Your task to perform on an android device: install app "Adobe Acrobat Reader" Image 0: 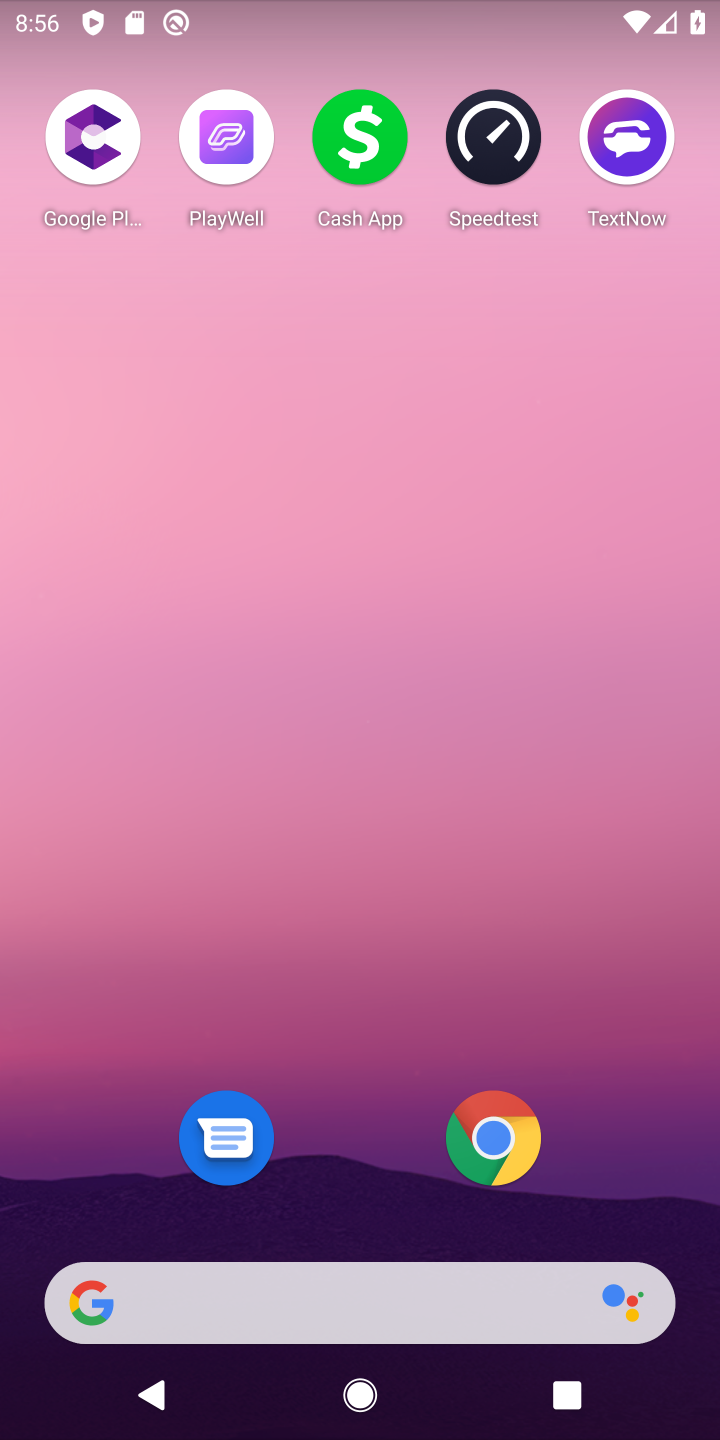
Step 0: press home button
Your task to perform on an android device: install app "Adobe Acrobat Reader" Image 1: 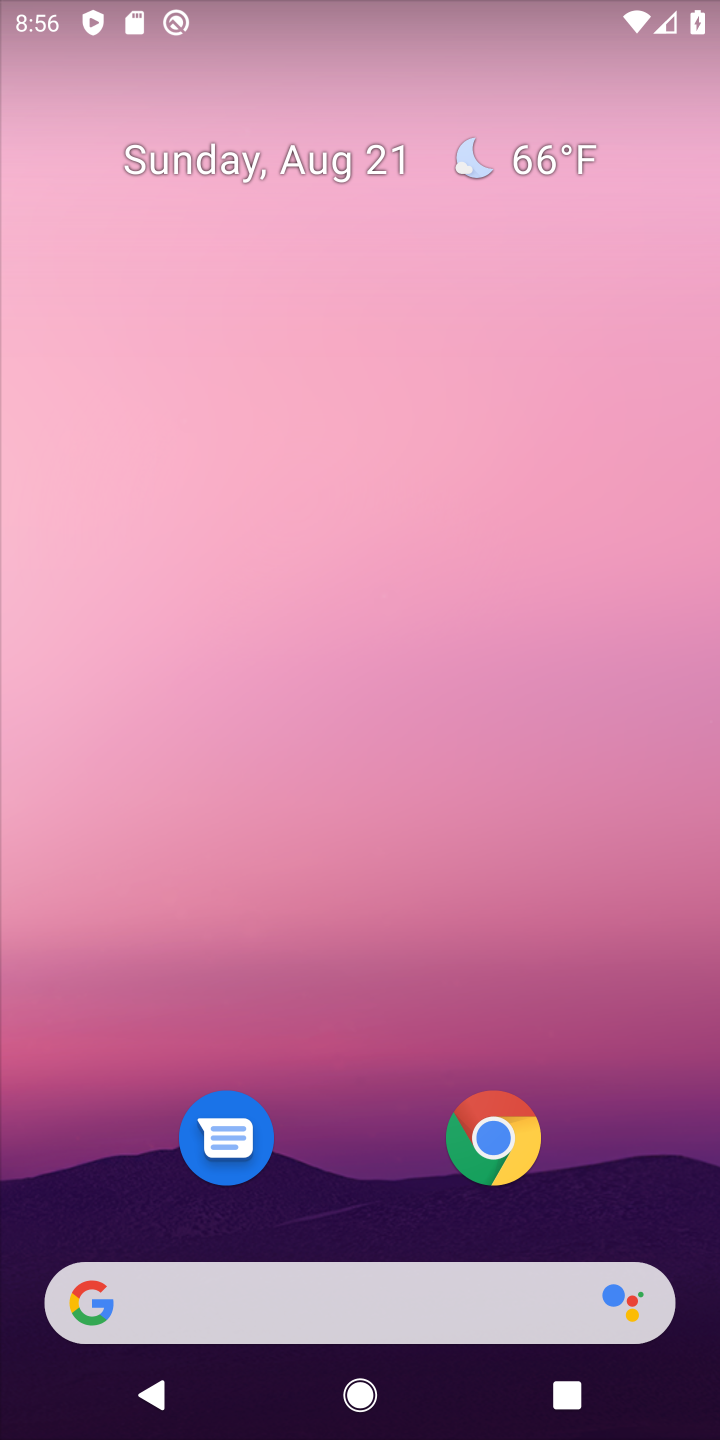
Step 1: drag from (634, 1138) to (571, 115)
Your task to perform on an android device: install app "Adobe Acrobat Reader" Image 2: 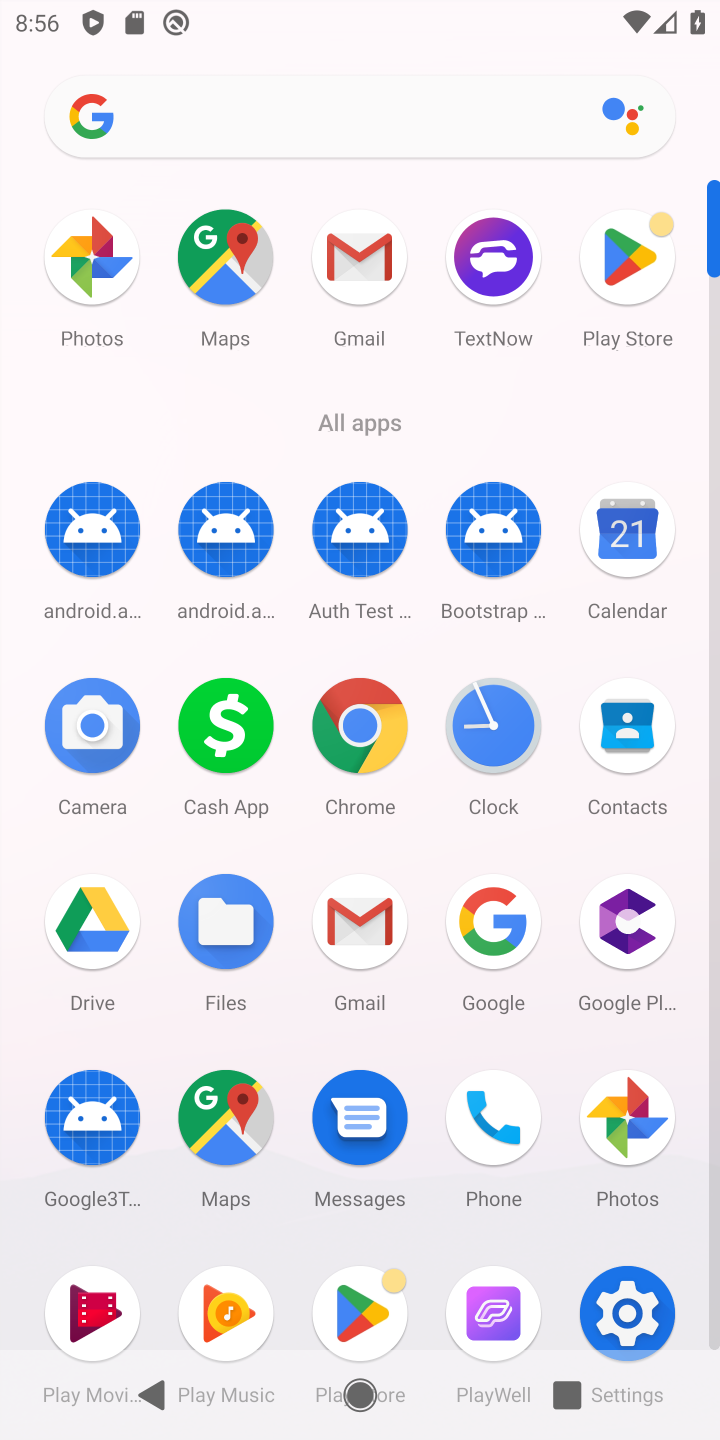
Step 2: click (639, 256)
Your task to perform on an android device: install app "Adobe Acrobat Reader" Image 3: 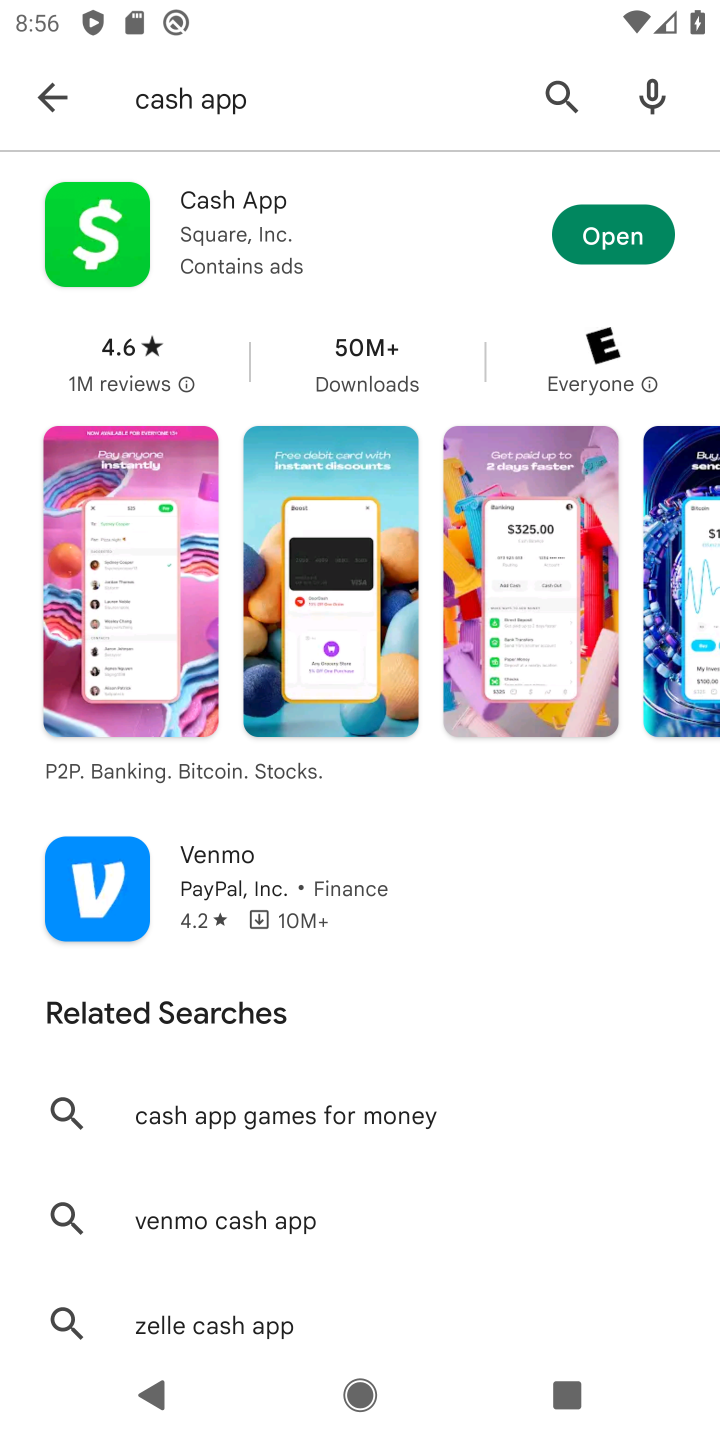
Step 3: press back button
Your task to perform on an android device: install app "Adobe Acrobat Reader" Image 4: 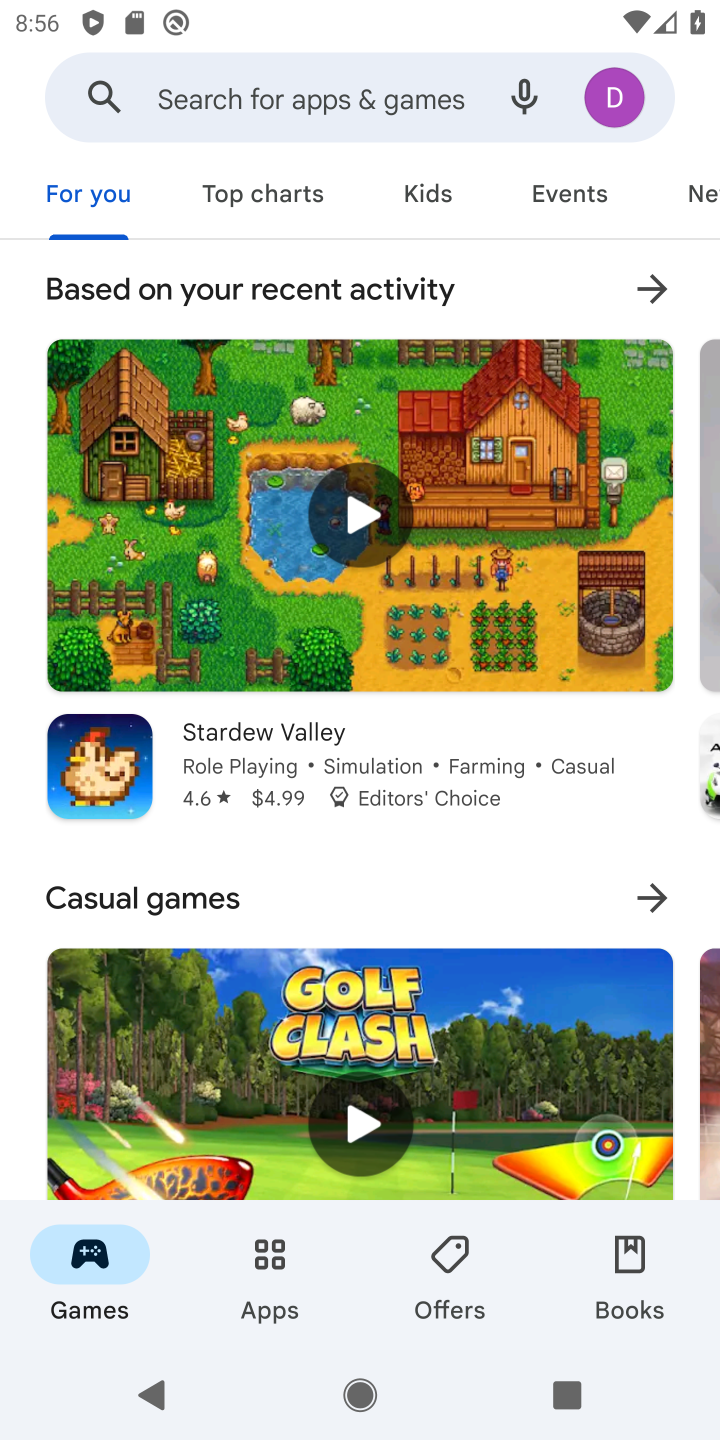
Step 4: click (420, 94)
Your task to perform on an android device: install app "Adobe Acrobat Reader" Image 5: 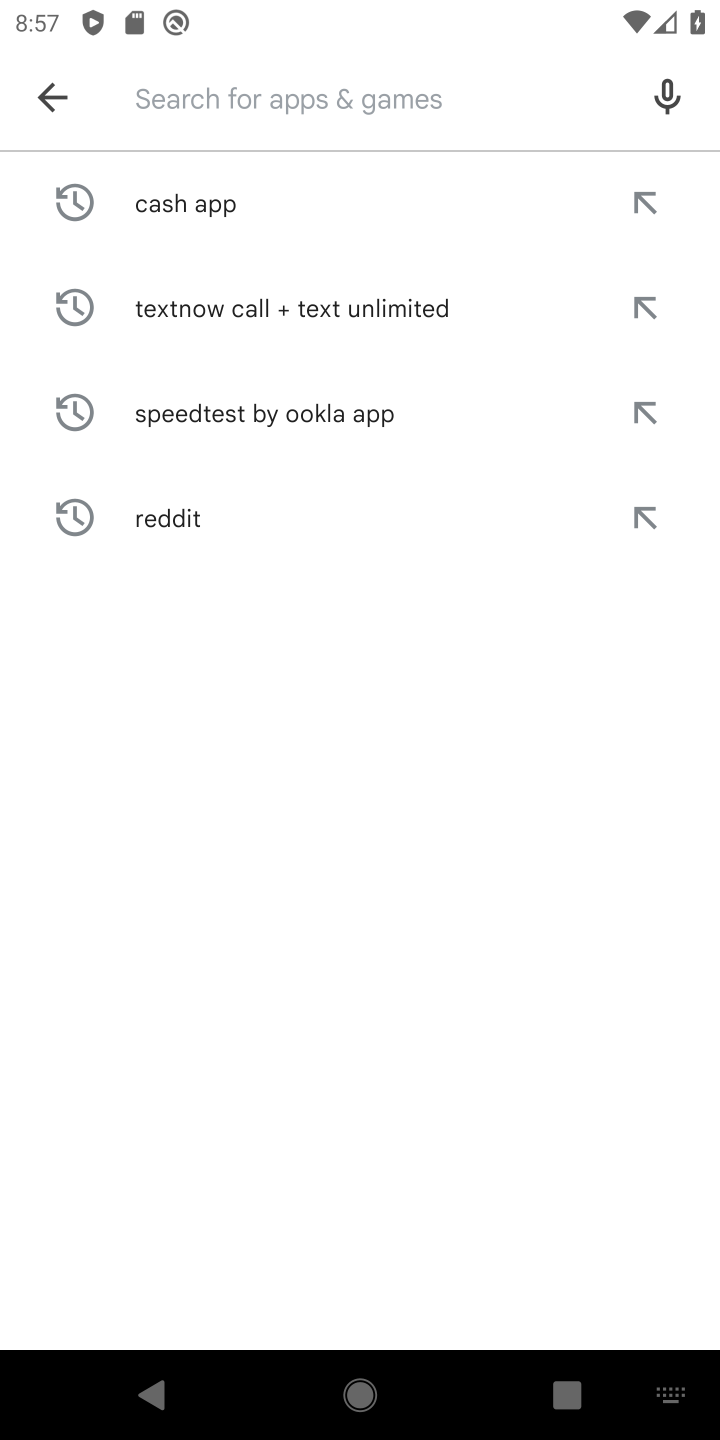
Step 5: press enter
Your task to perform on an android device: install app "Adobe Acrobat Reader" Image 6: 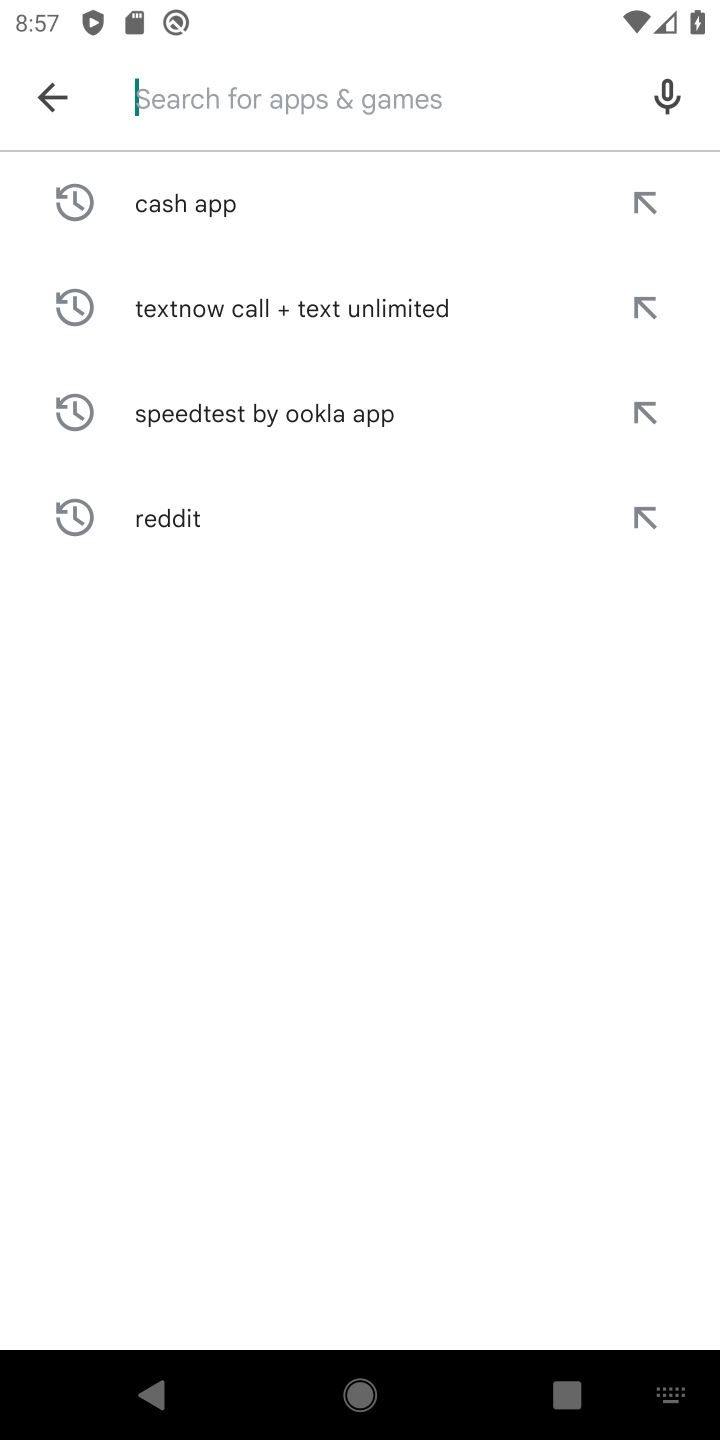
Step 6: type "Adobe Acrobat Reader"
Your task to perform on an android device: install app "Adobe Acrobat Reader" Image 7: 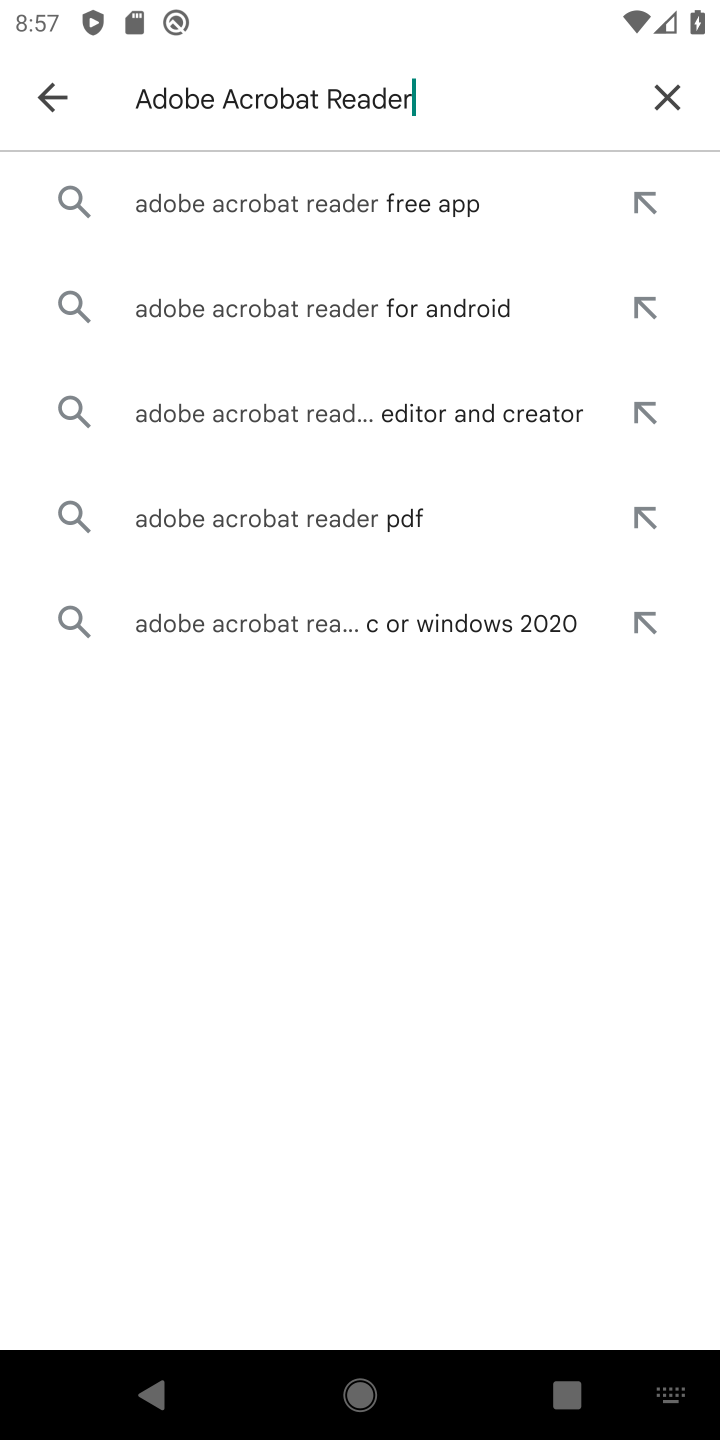
Step 7: click (403, 209)
Your task to perform on an android device: install app "Adobe Acrobat Reader" Image 8: 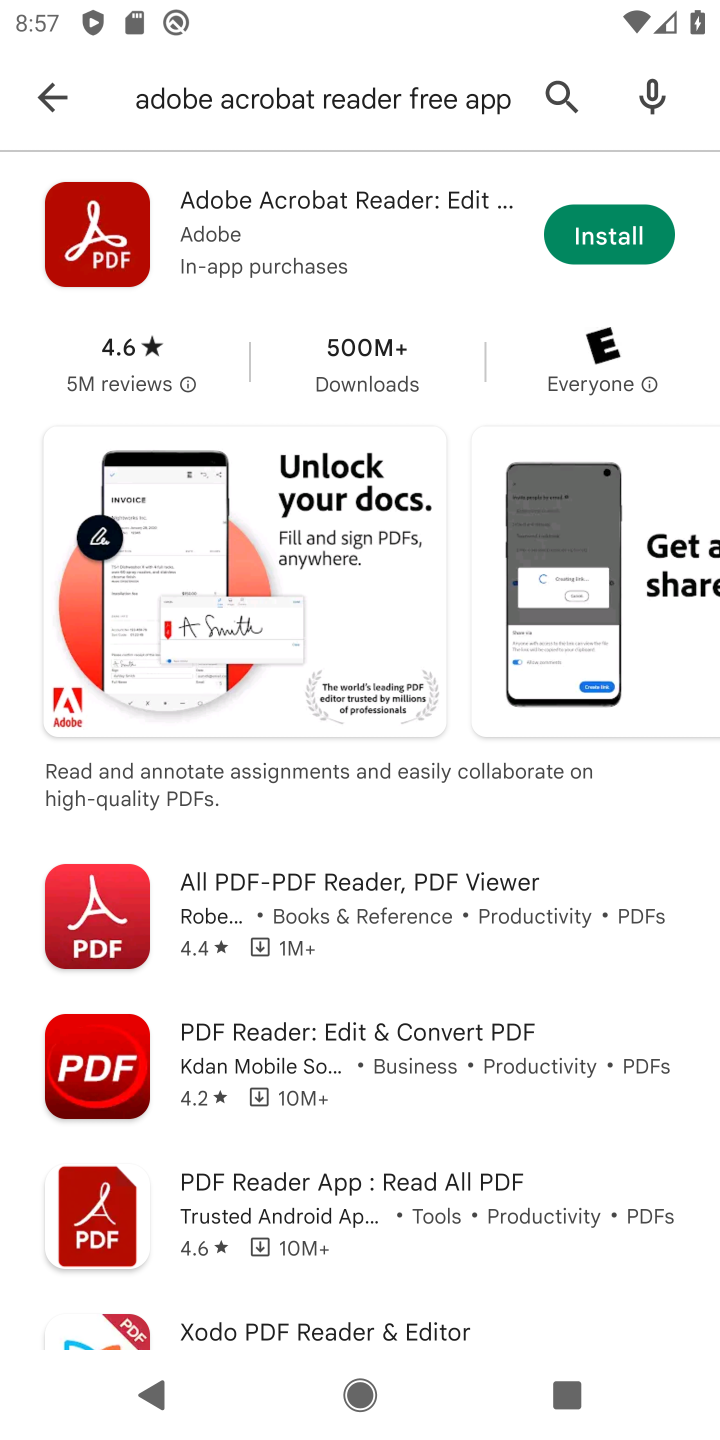
Step 8: click (606, 235)
Your task to perform on an android device: install app "Adobe Acrobat Reader" Image 9: 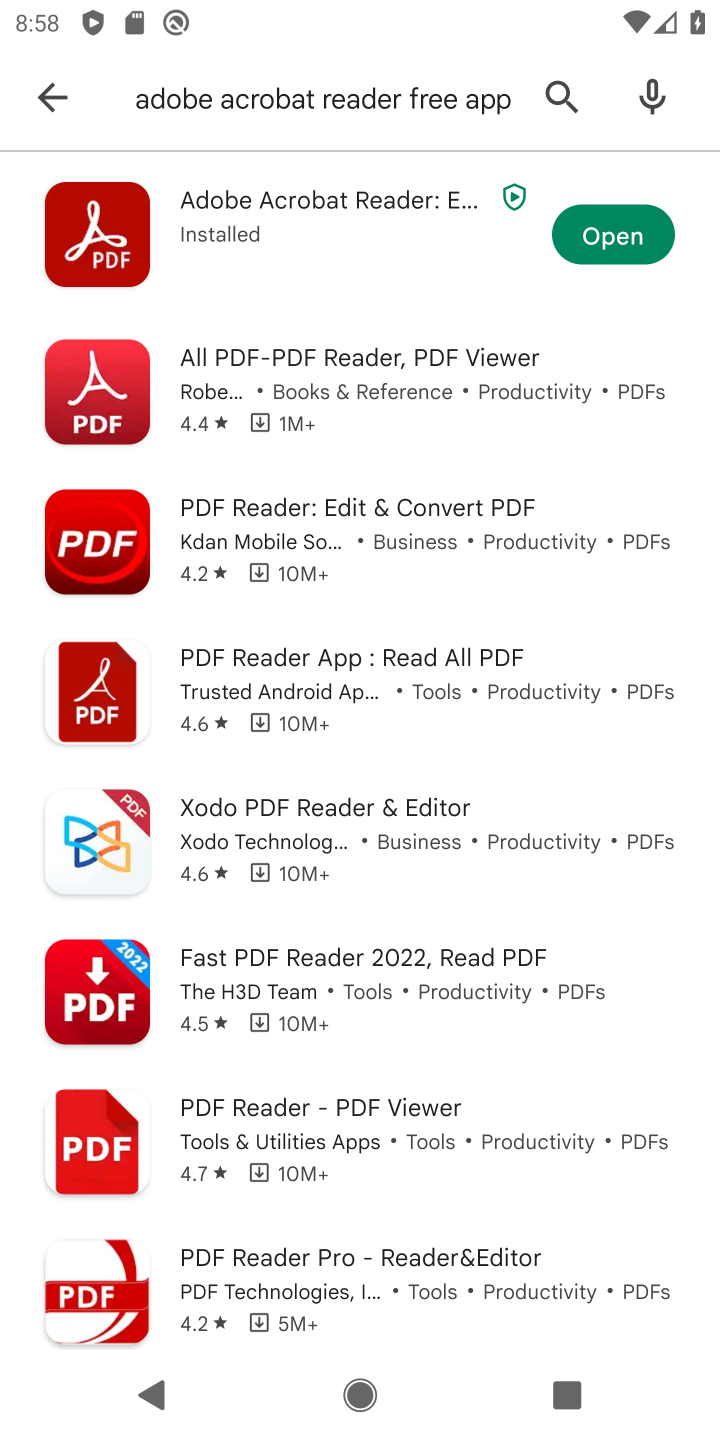
Step 9: task complete